Your task to perform on an android device: Open Maps and search for coffee Image 0: 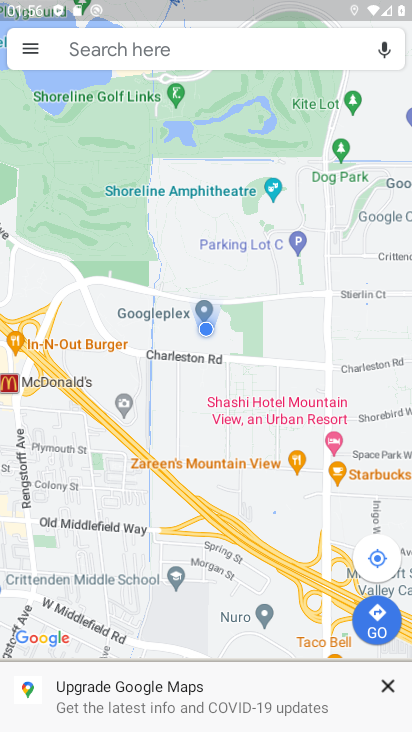
Step 0: press home button
Your task to perform on an android device: Open Maps and search for coffee Image 1: 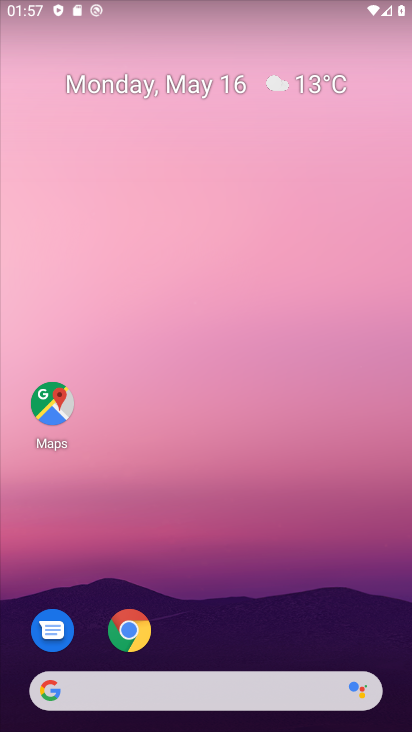
Step 1: drag from (345, 570) to (268, 66)
Your task to perform on an android device: Open Maps and search for coffee Image 2: 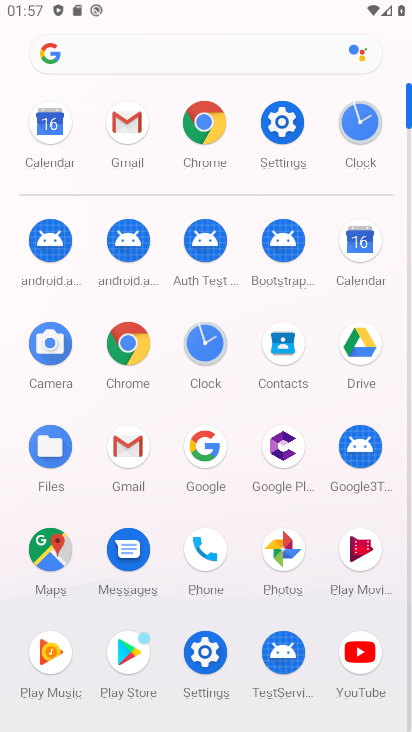
Step 2: click (55, 545)
Your task to perform on an android device: Open Maps and search for coffee Image 3: 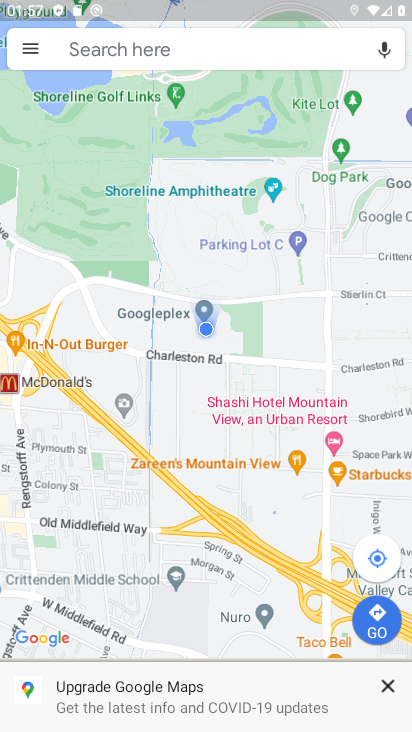
Step 3: click (204, 46)
Your task to perform on an android device: Open Maps and search for coffee Image 4: 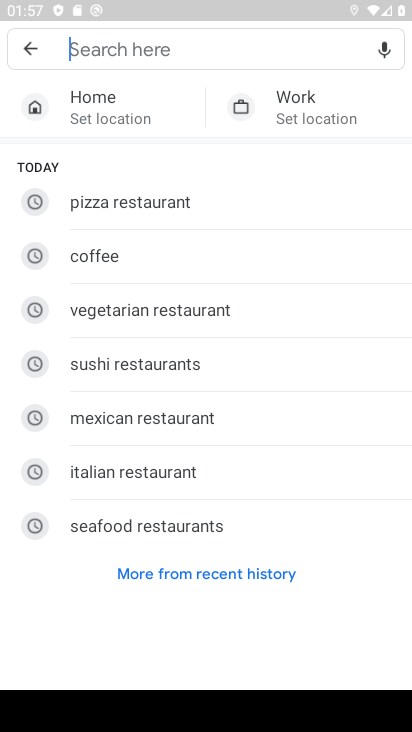
Step 4: click (107, 252)
Your task to perform on an android device: Open Maps and search for coffee Image 5: 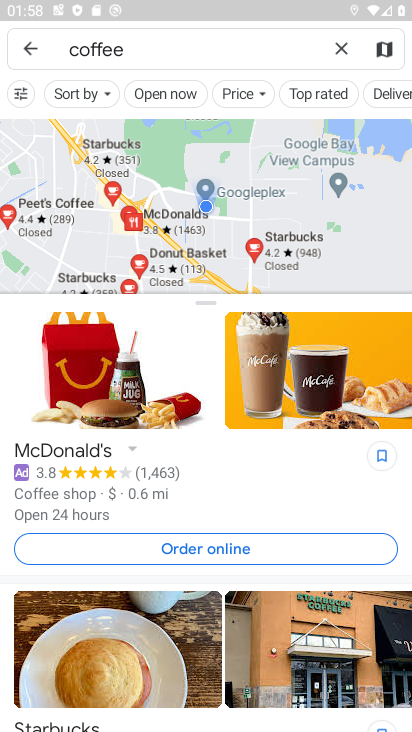
Step 5: task complete